Your task to perform on an android device: turn on javascript in the chrome app Image 0: 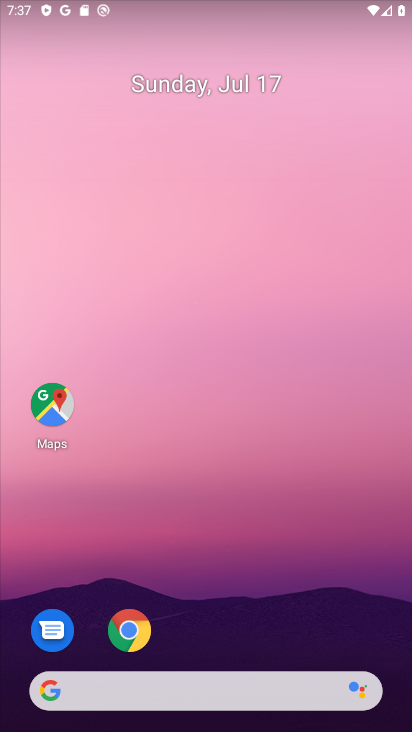
Step 0: click (128, 631)
Your task to perform on an android device: turn on javascript in the chrome app Image 1: 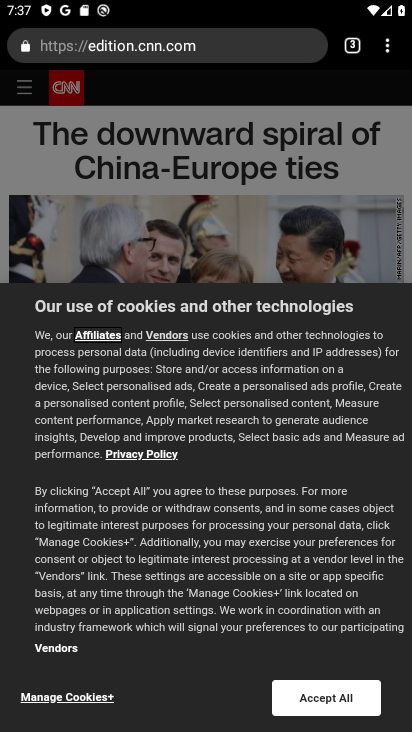
Step 1: click (385, 45)
Your task to perform on an android device: turn on javascript in the chrome app Image 2: 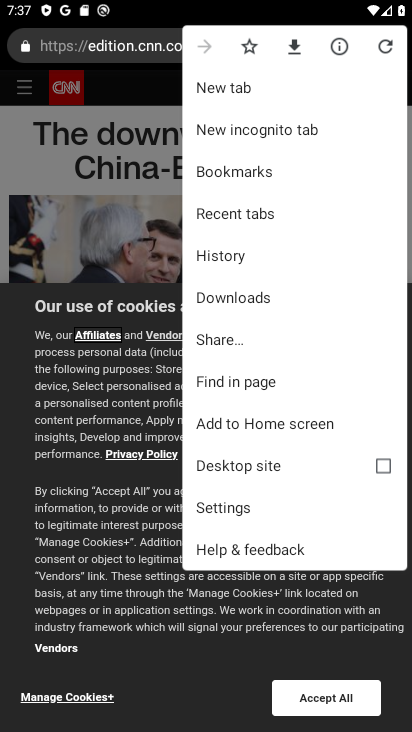
Step 2: click (237, 508)
Your task to perform on an android device: turn on javascript in the chrome app Image 3: 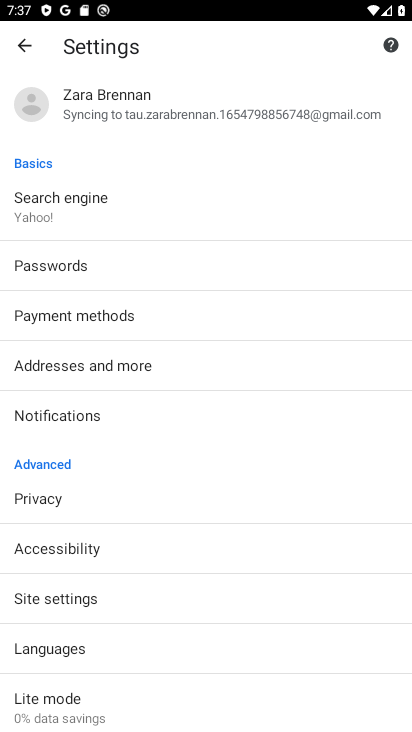
Step 3: click (62, 593)
Your task to perform on an android device: turn on javascript in the chrome app Image 4: 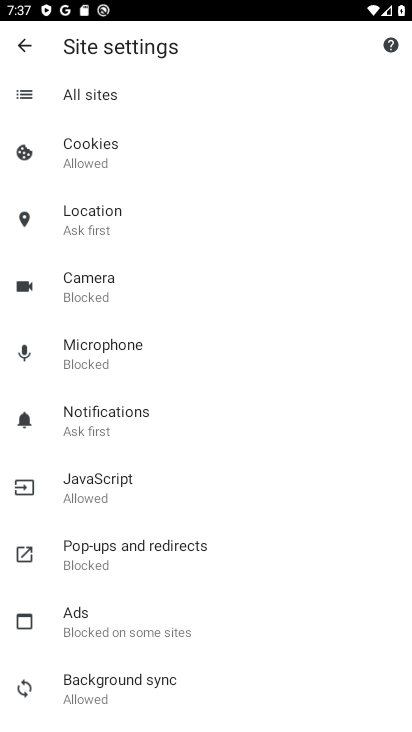
Step 4: click (136, 456)
Your task to perform on an android device: turn on javascript in the chrome app Image 5: 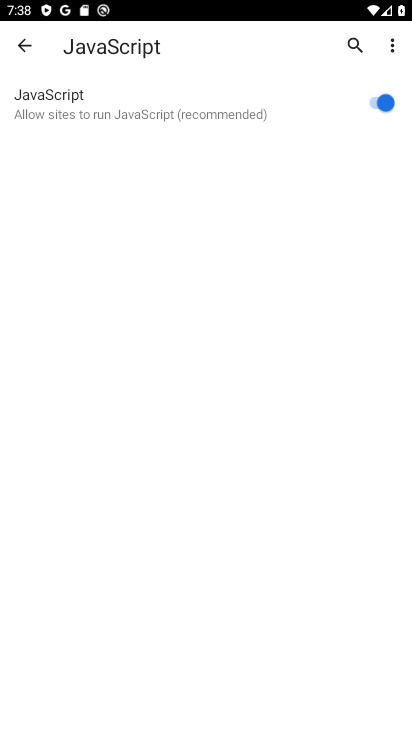
Step 5: task complete